Your task to perform on an android device: turn off notifications settings in the gmail app Image 0: 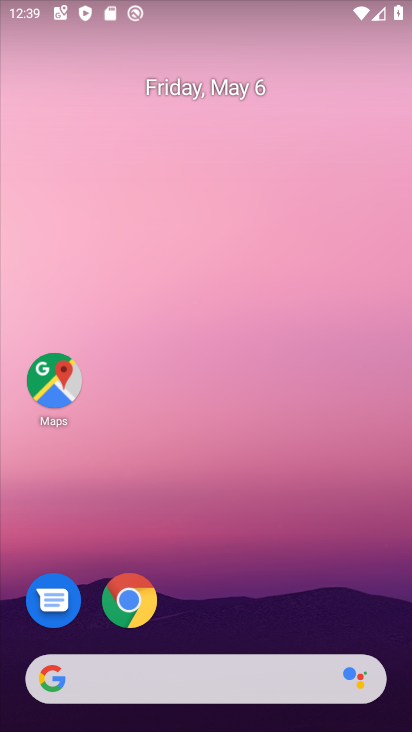
Step 0: drag from (346, 620) to (351, 81)
Your task to perform on an android device: turn off notifications settings in the gmail app Image 1: 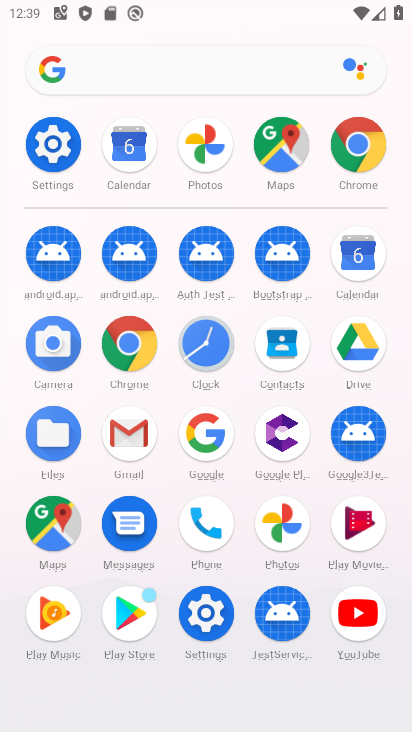
Step 1: click (122, 442)
Your task to perform on an android device: turn off notifications settings in the gmail app Image 2: 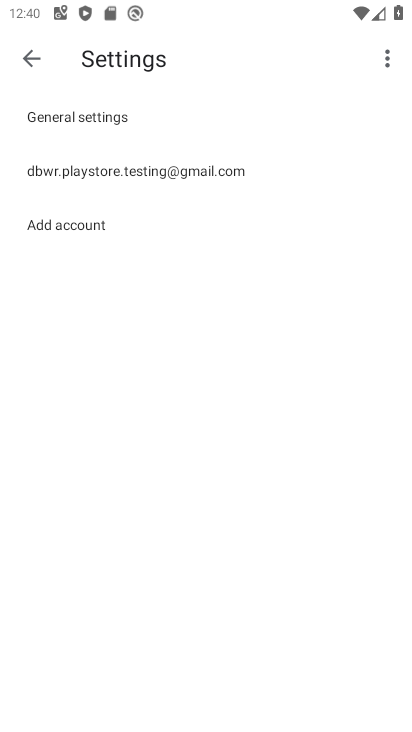
Step 2: click (229, 173)
Your task to perform on an android device: turn off notifications settings in the gmail app Image 3: 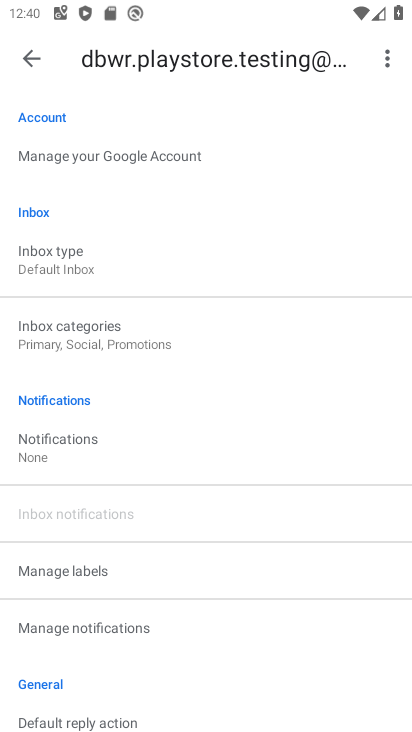
Step 3: click (77, 459)
Your task to perform on an android device: turn off notifications settings in the gmail app Image 4: 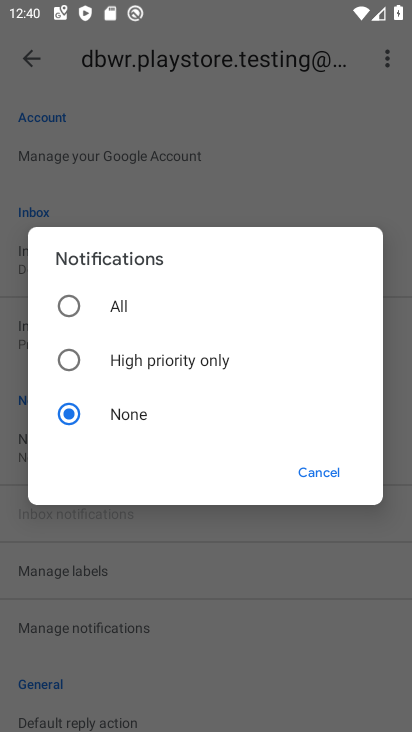
Step 4: task complete